Your task to perform on an android device: turn off notifications in google photos Image 0: 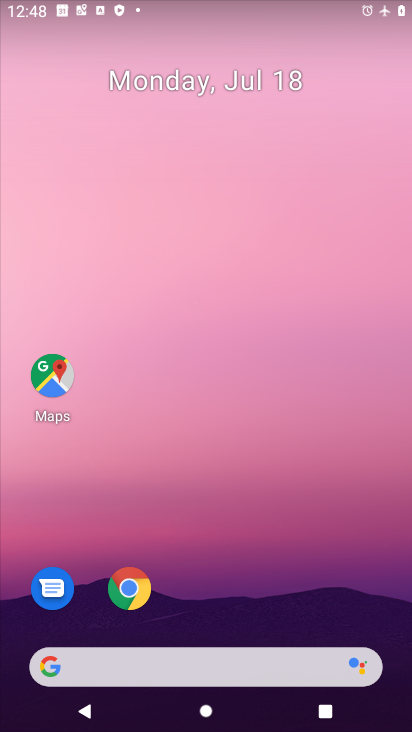
Step 0: drag from (239, 595) to (195, 168)
Your task to perform on an android device: turn off notifications in google photos Image 1: 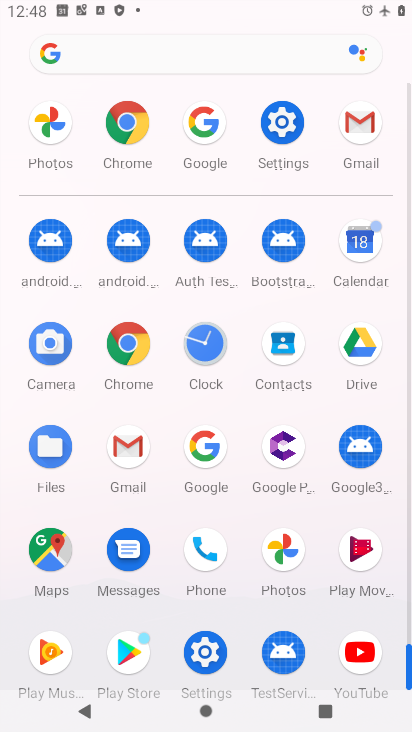
Step 1: click (280, 563)
Your task to perform on an android device: turn off notifications in google photos Image 2: 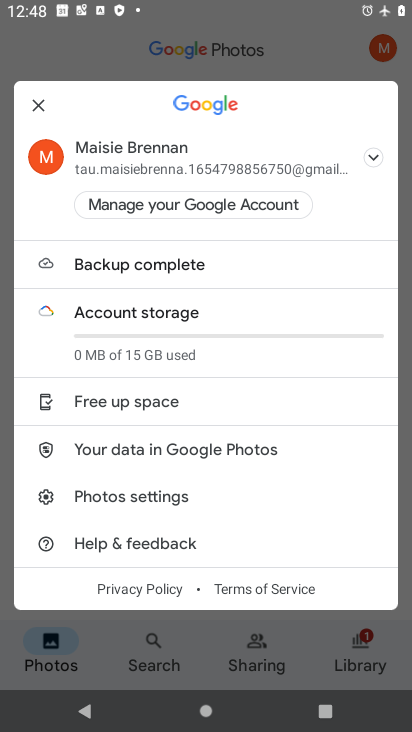
Step 2: click (95, 500)
Your task to perform on an android device: turn off notifications in google photos Image 3: 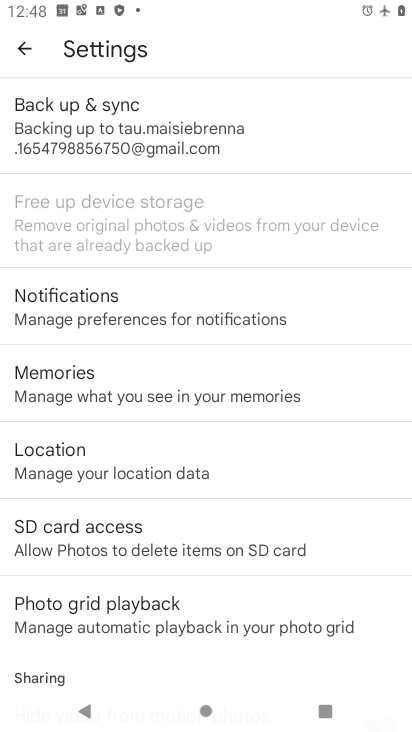
Step 3: click (153, 319)
Your task to perform on an android device: turn off notifications in google photos Image 4: 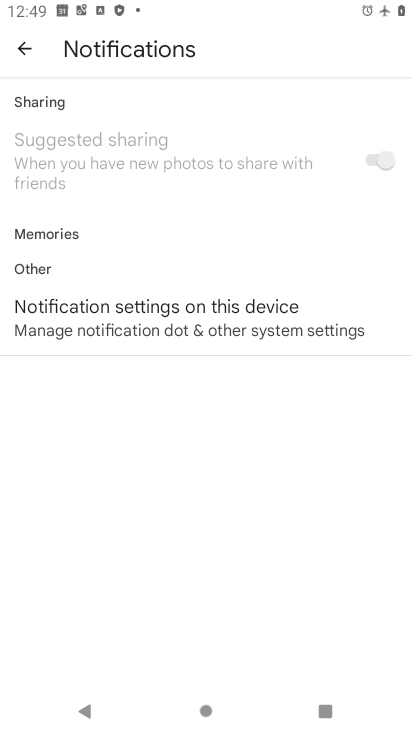
Step 4: click (177, 302)
Your task to perform on an android device: turn off notifications in google photos Image 5: 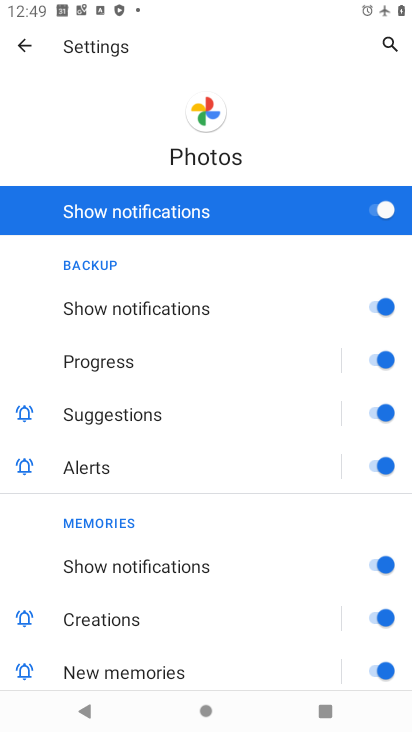
Step 5: click (375, 209)
Your task to perform on an android device: turn off notifications in google photos Image 6: 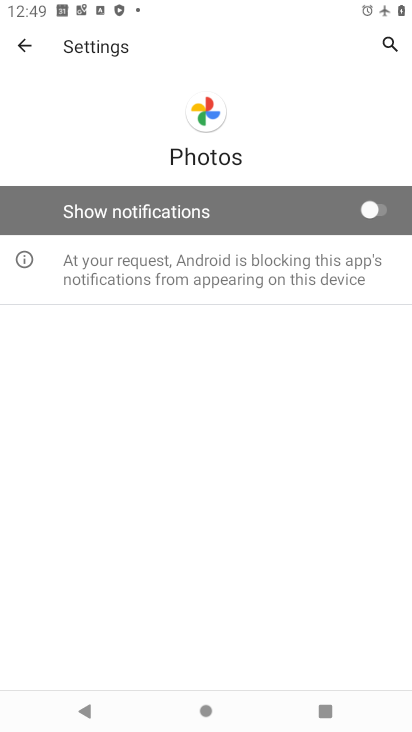
Step 6: task complete